Your task to perform on an android device: Open calendar and show me the second week of next month Image 0: 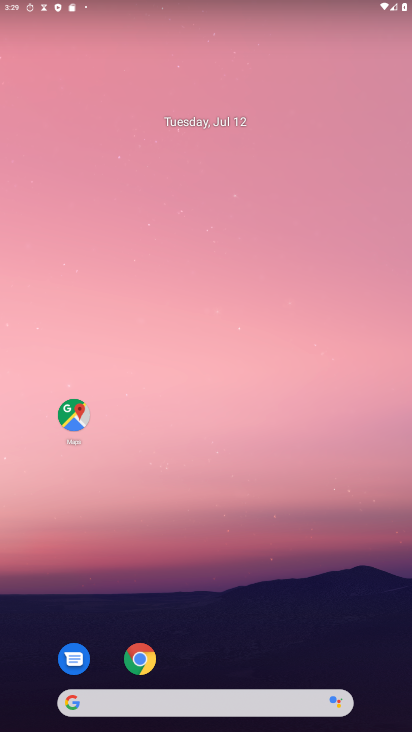
Step 0: drag from (275, 637) to (193, 198)
Your task to perform on an android device: Open calendar and show me the second week of next month Image 1: 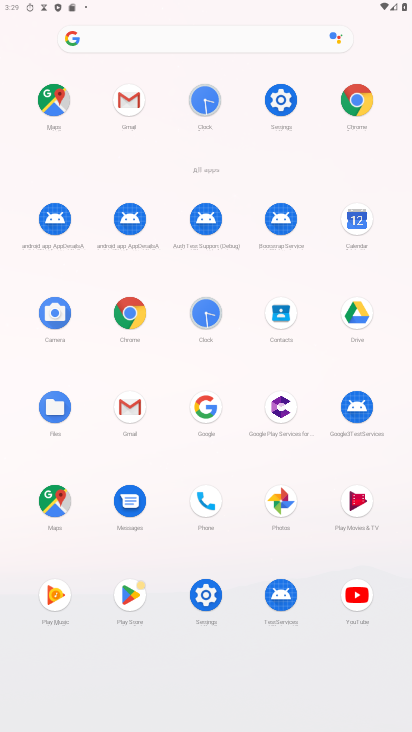
Step 1: click (359, 218)
Your task to perform on an android device: Open calendar and show me the second week of next month Image 2: 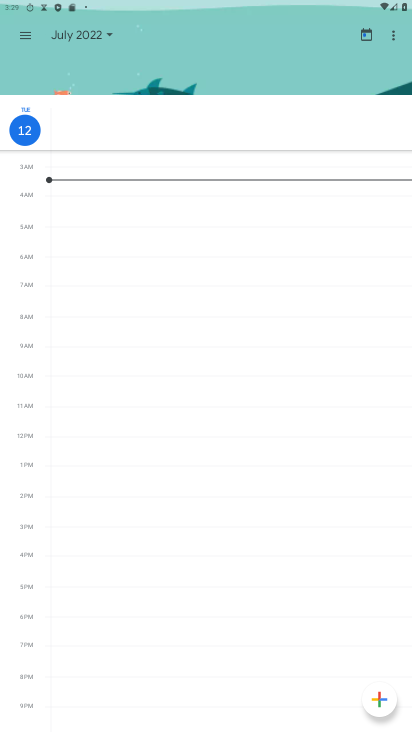
Step 2: click (18, 39)
Your task to perform on an android device: Open calendar and show me the second week of next month Image 3: 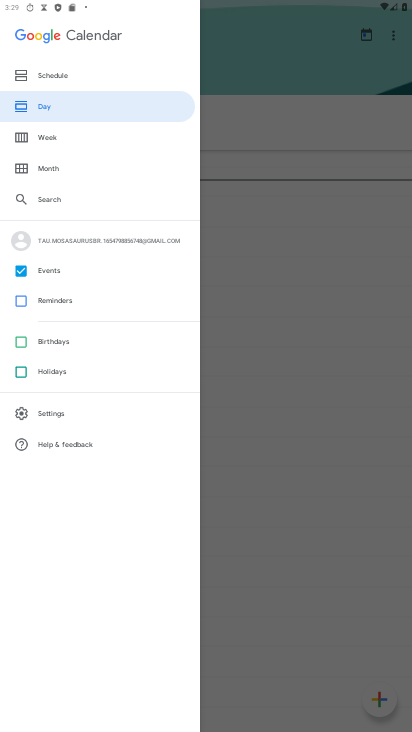
Step 3: click (63, 136)
Your task to perform on an android device: Open calendar and show me the second week of next month Image 4: 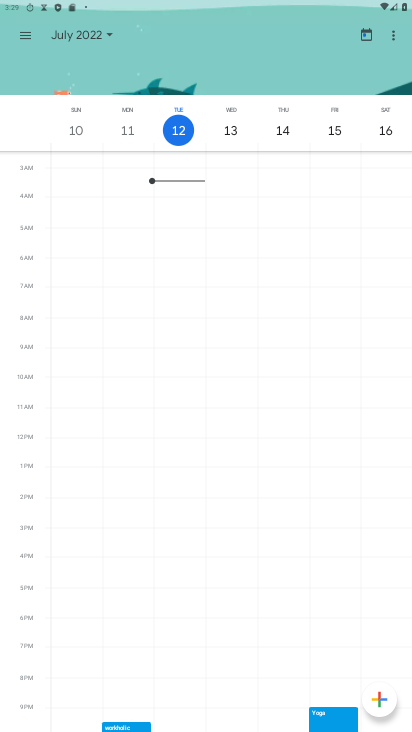
Step 4: click (93, 36)
Your task to perform on an android device: Open calendar and show me the second week of next month Image 5: 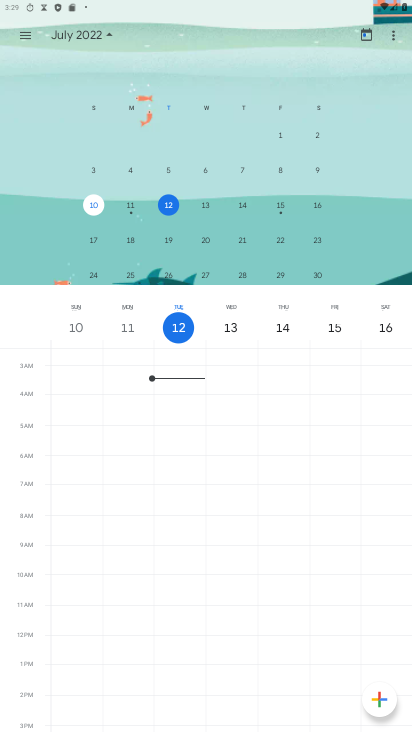
Step 5: drag from (362, 212) to (38, 188)
Your task to perform on an android device: Open calendar and show me the second week of next month Image 6: 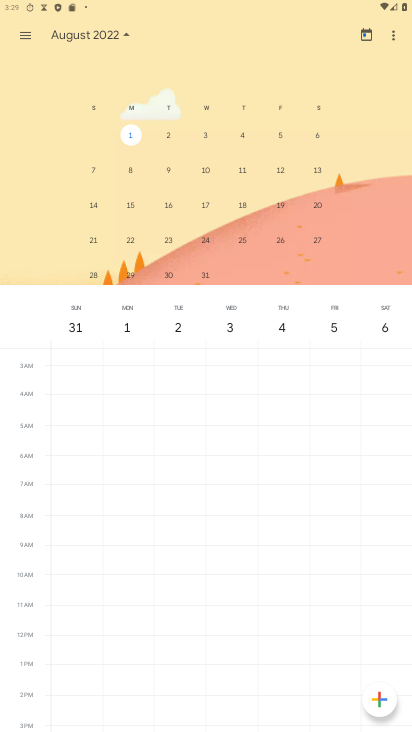
Step 6: click (169, 172)
Your task to perform on an android device: Open calendar and show me the second week of next month Image 7: 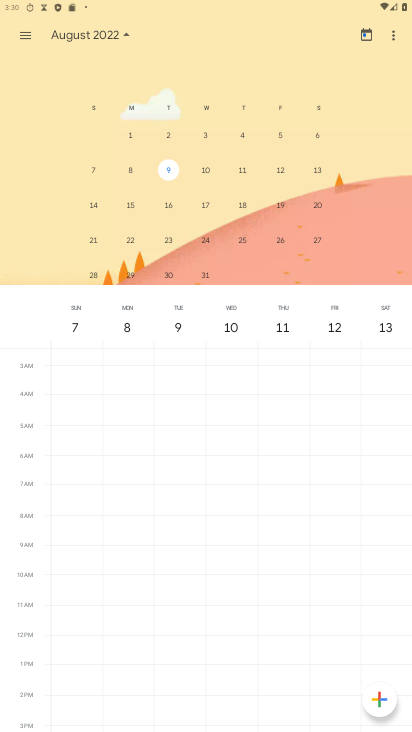
Step 7: task complete